Your task to perform on an android device: Open Google Maps and go to "Timeline" Image 0: 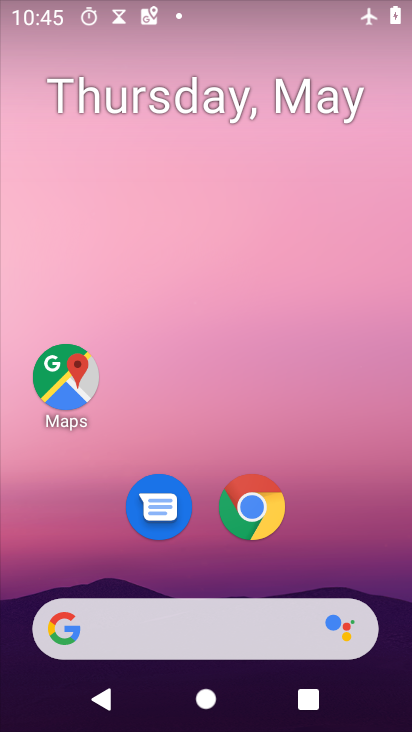
Step 0: drag from (358, 536) to (250, 4)
Your task to perform on an android device: Open Google Maps and go to "Timeline" Image 1: 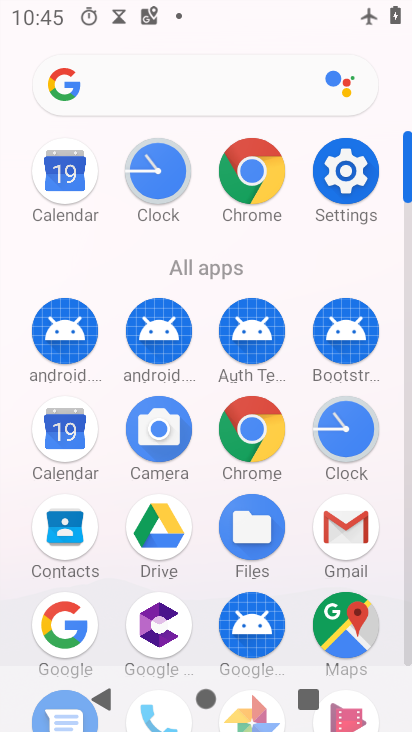
Step 1: drag from (14, 573) to (0, 236)
Your task to perform on an android device: Open Google Maps and go to "Timeline" Image 2: 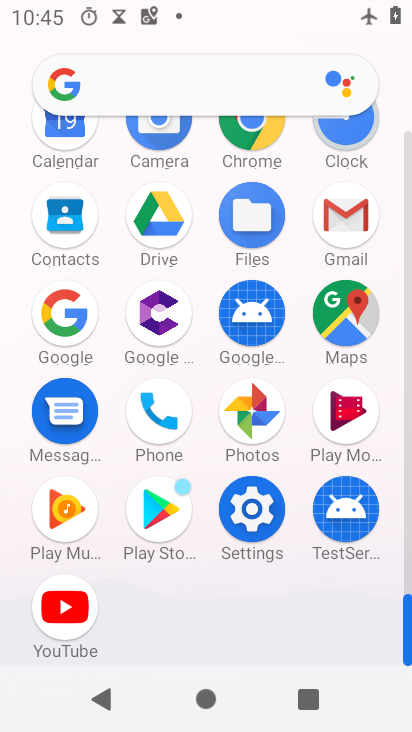
Step 2: click (341, 310)
Your task to perform on an android device: Open Google Maps and go to "Timeline" Image 3: 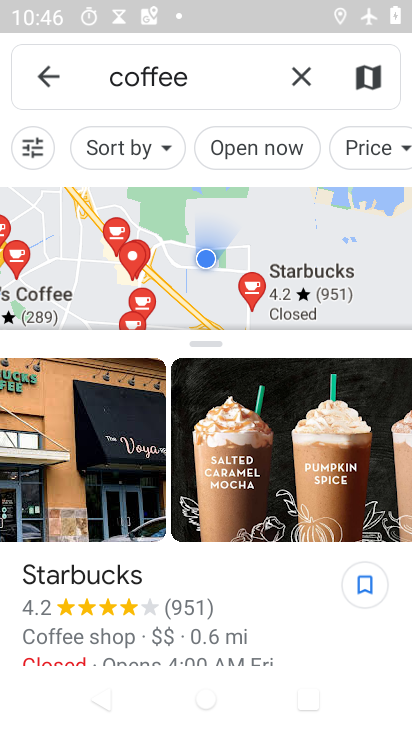
Step 3: click (43, 75)
Your task to perform on an android device: Open Google Maps and go to "Timeline" Image 4: 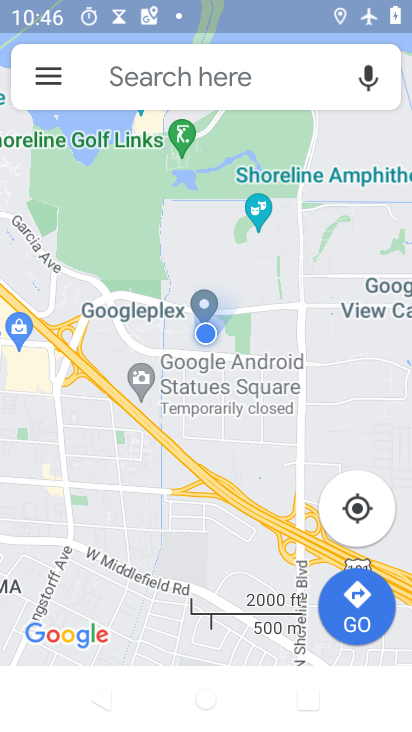
Step 4: click (43, 75)
Your task to perform on an android device: Open Google Maps and go to "Timeline" Image 5: 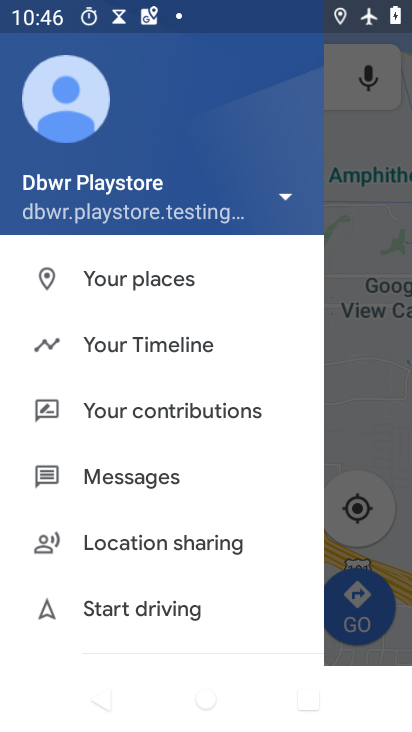
Step 5: click (176, 345)
Your task to perform on an android device: Open Google Maps and go to "Timeline" Image 6: 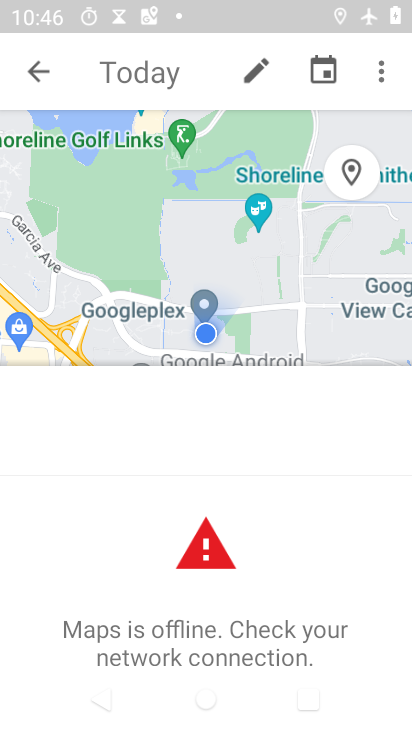
Step 6: task complete